Your task to perform on an android device: Open the calendar and show me this week's events Image 0: 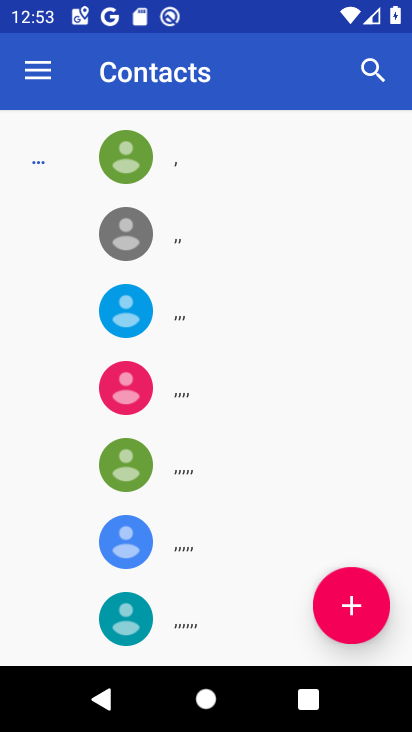
Step 0: press home button
Your task to perform on an android device: Open the calendar and show me this week's events Image 1: 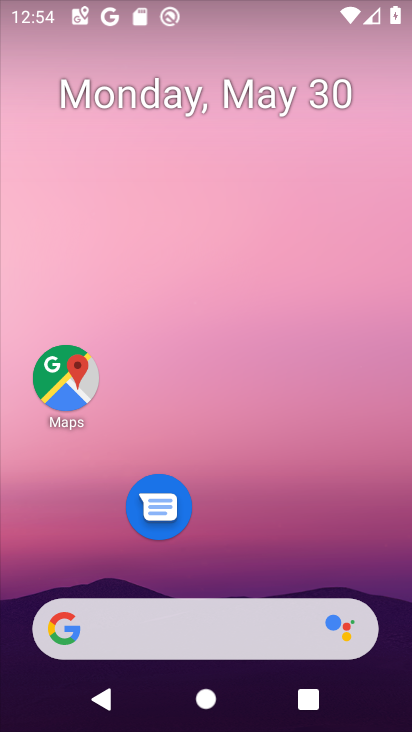
Step 1: drag from (307, 523) to (300, 114)
Your task to perform on an android device: Open the calendar and show me this week's events Image 2: 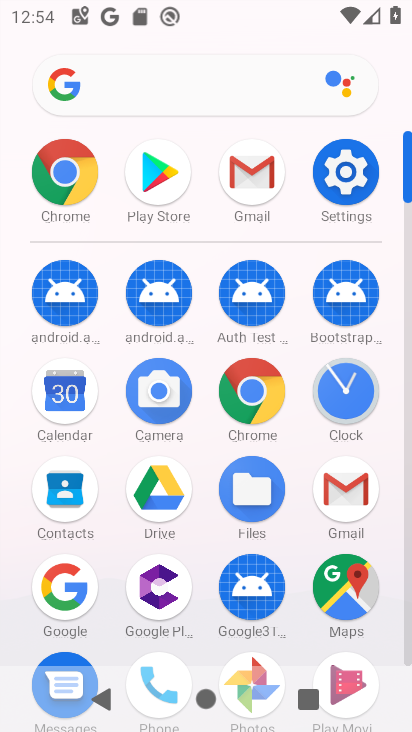
Step 2: drag from (205, 258) to (208, 51)
Your task to perform on an android device: Open the calendar and show me this week's events Image 3: 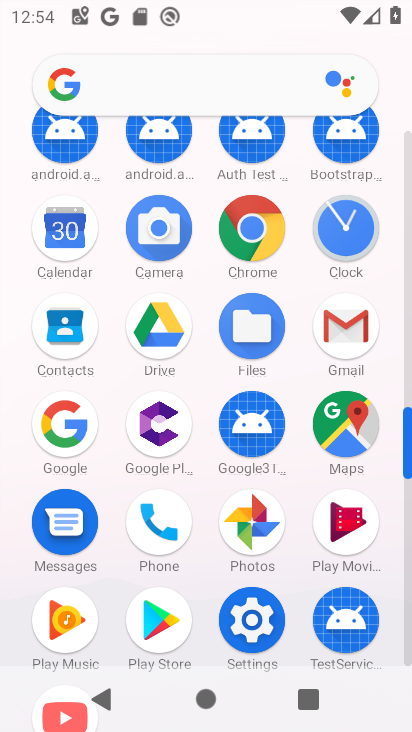
Step 3: click (59, 244)
Your task to perform on an android device: Open the calendar and show me this week's events Image 4: 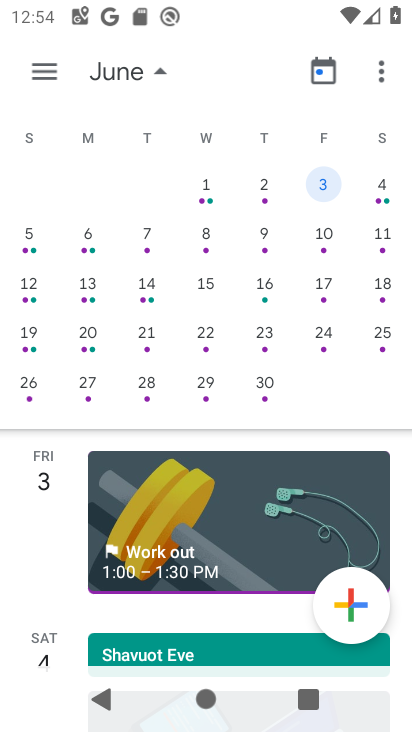
Step 4: drag from (236, 539) to (281, 222)
Your task to perform on an android device: Open the calendar and show me this week's events Image 5: 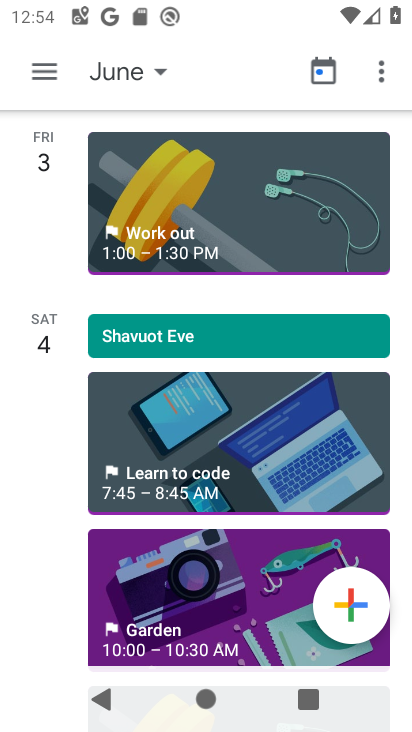
Step 5: drag from (234, 158) to (207, 518)
Your task to perform on an android device: Open the calendar and show me this week's events Image 6: 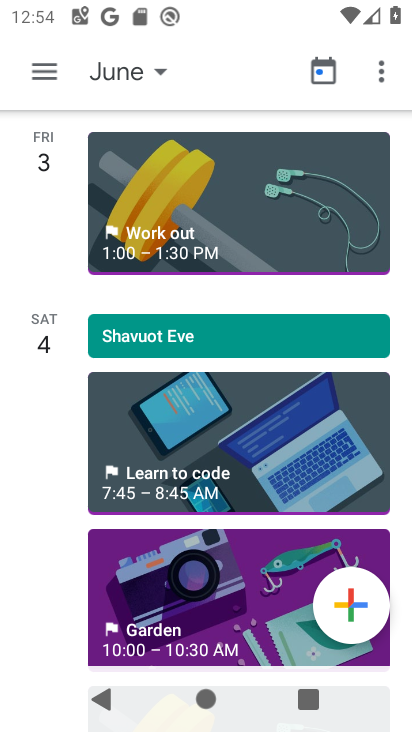
Step 6: drag from (180, 103) to (148, 504)
Your task to perform on an android device: Open the calendar and show me this week's events Image 7: 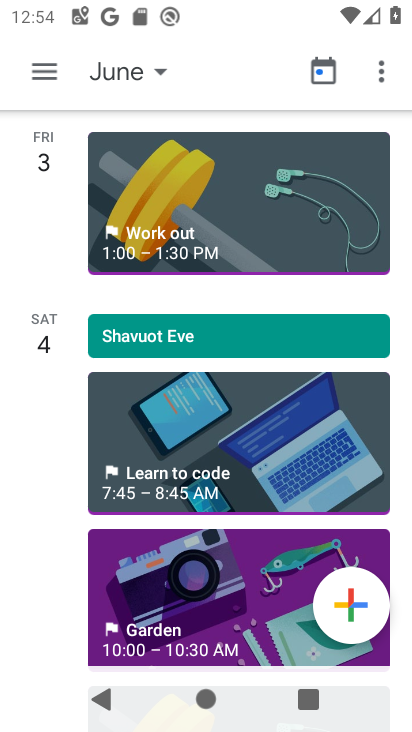
Step 7: click (135, 62)
Your task to perform on an android device: Open the calendar and show me this week's events Image 8: 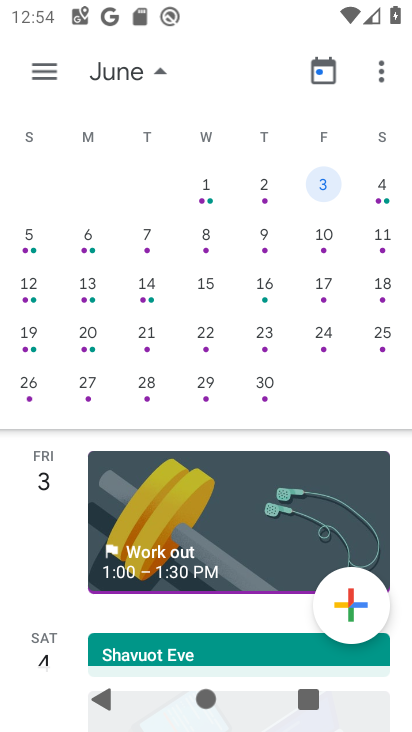
Step 8: click (206, 197)
Your task to perform on an android device: Open the calendar and show me this week's events Image 9: 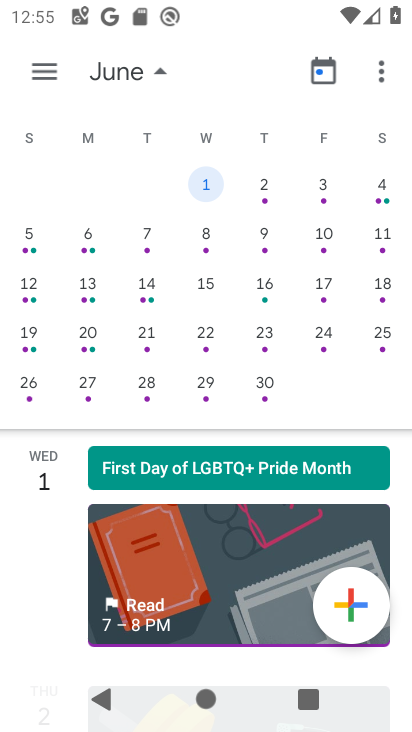
Step 9: task complete